Your task to perform on an android device: Show me popular videos on Youtube Image 0: 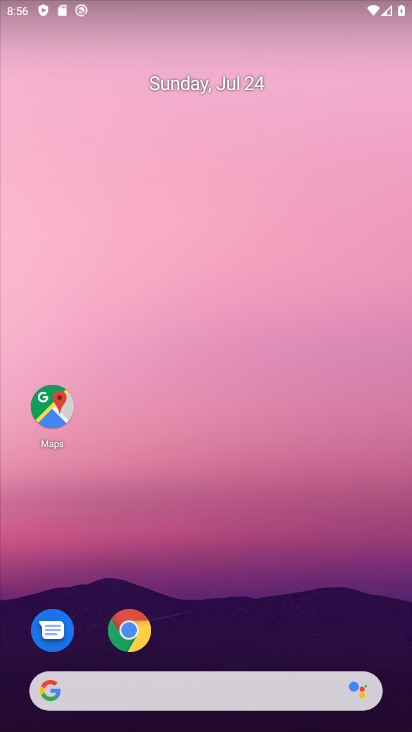
Step 0: drag from (264, 597) to (171, 122)
Your task to perform on an android device: Show me popular videos on Youtube Image 1: 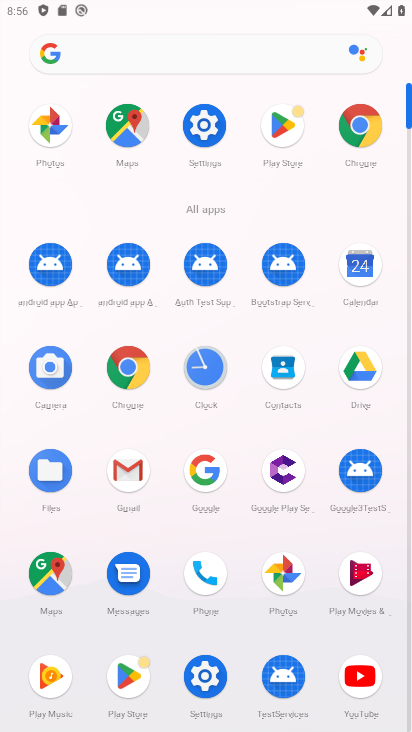
Step 1: click (362, 676)
Your task to perform on an android device: Show me popular videos on Youtube Image 2: 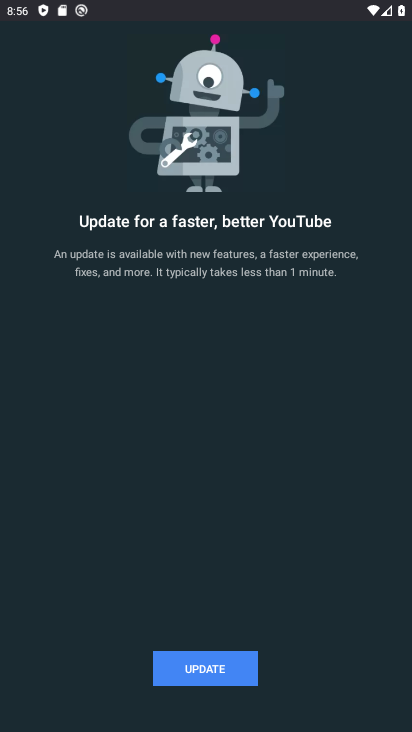
Step 2: click (198, 672)
Your task to perform on an android device: Show me popular videos on Youtube Image 3: 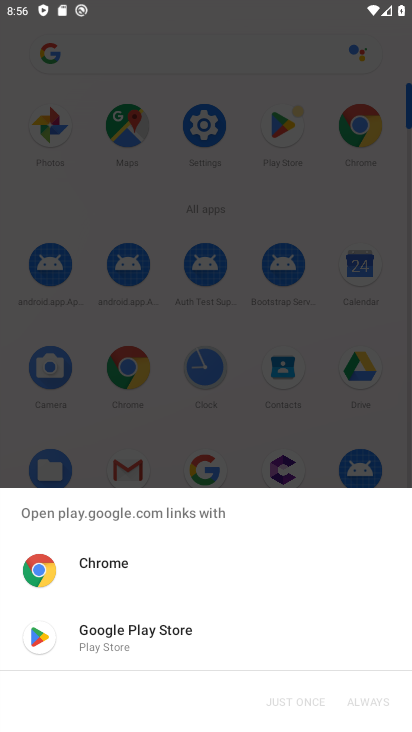
Step 3: click (105, 634)
Your task to perform on an android device: Show me popular videos on Youtube Image 4: 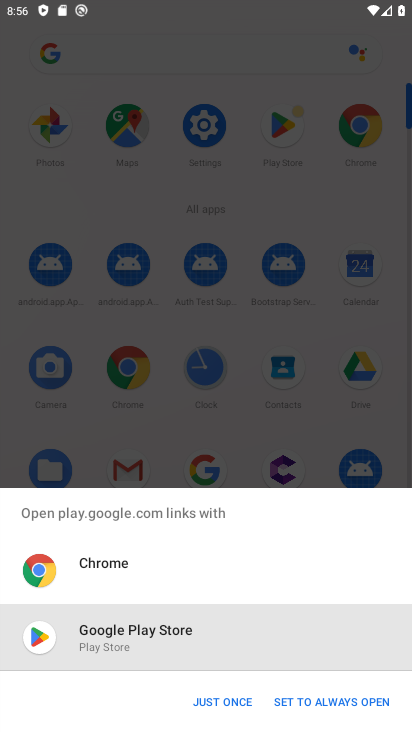
Step 4: click (236, 701)
Your task to perform on an android device: Show me popular videos on Youtube Image 5: 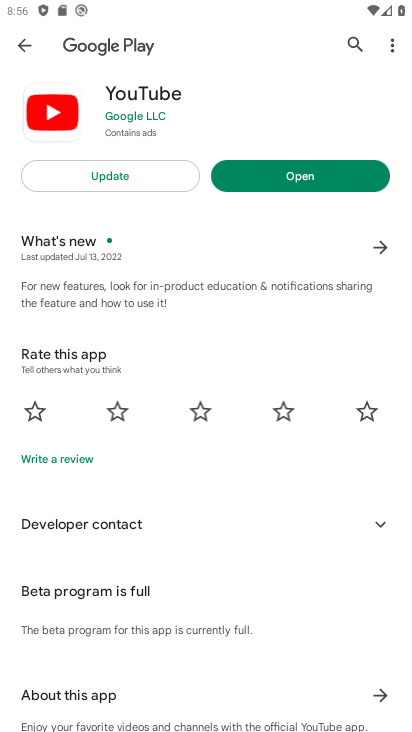
Step 5: click (153, 175)
Your task to perform on an android device: Show me popular videos on Youtube Image 6: 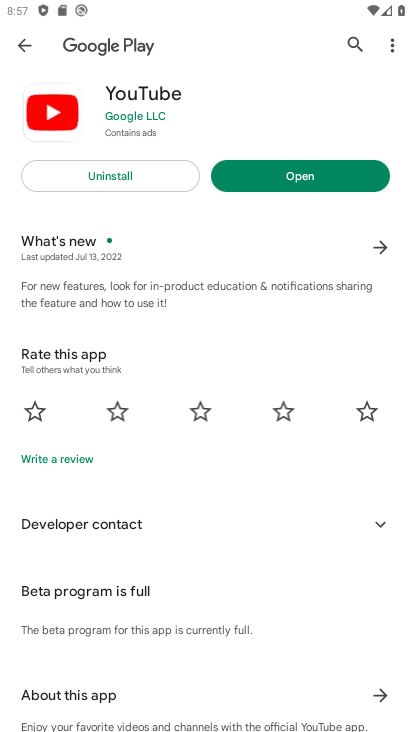
Step 6: click (316, 168)
Your task to perform on an android device: Show me popular videos on Youtube Image 7: 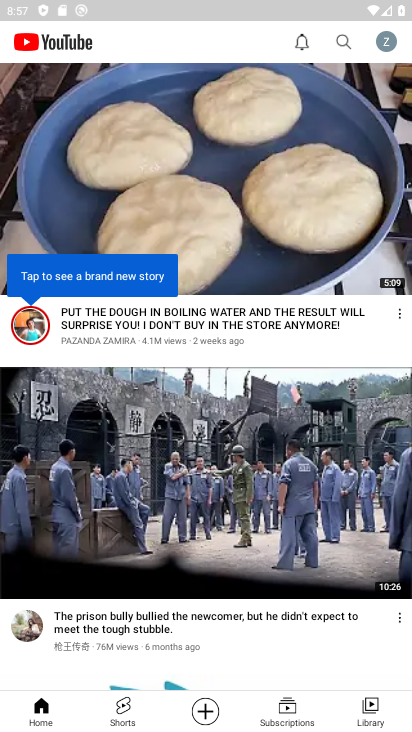
Step 7: click (125, 704)
Your task to perform on an android device: Show me popular videos on Youtube Image 8: 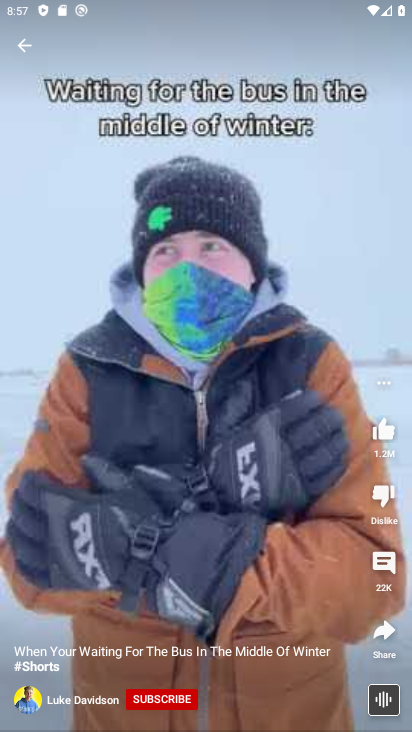
Step 8: task complete